Your task to perform on an android device: turn notification dots off Image 0: 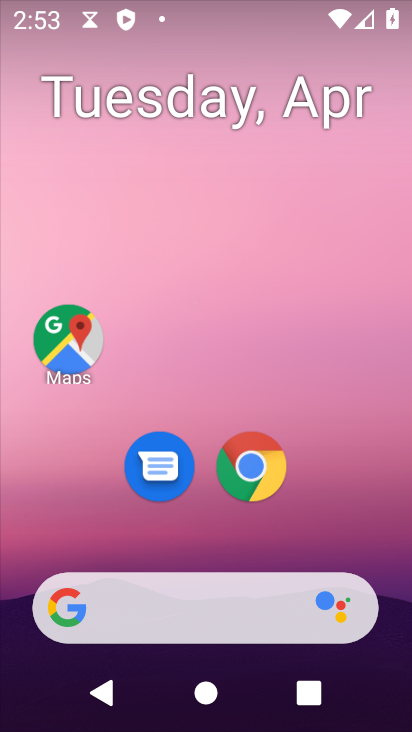
Step 0: drag from (356, 525) to (257, 6)
Your task to perform on an android device: turn notification dots off Image 1: 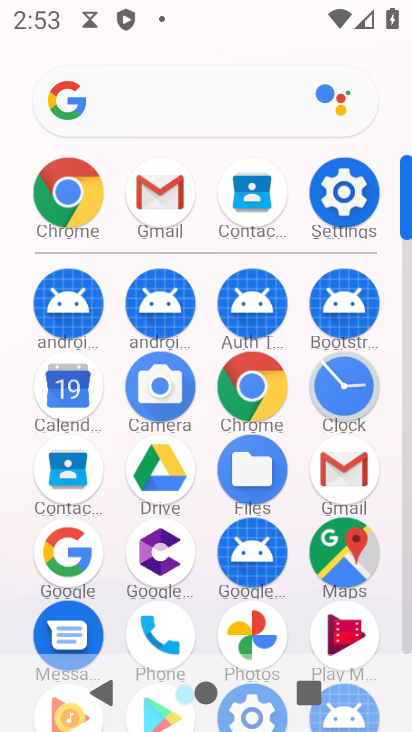
Step 1: drag from (10, 453) to (4, 280)
Your task to perform on an android device: turn notification dots off Image 2: 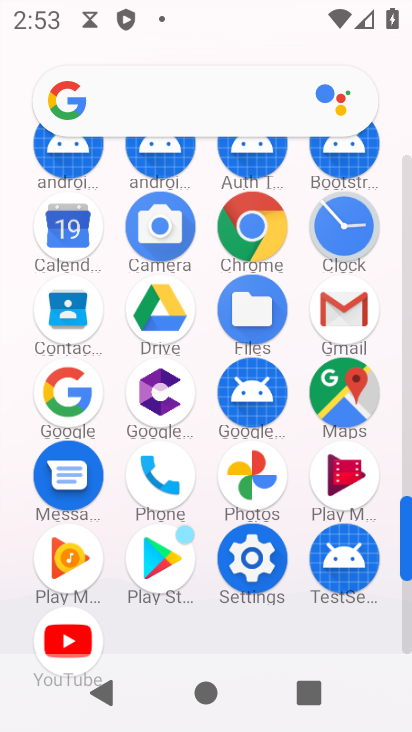
Step 2: click (253, 560)
Your task to perform on an android device: turn notification dots off Image 3: 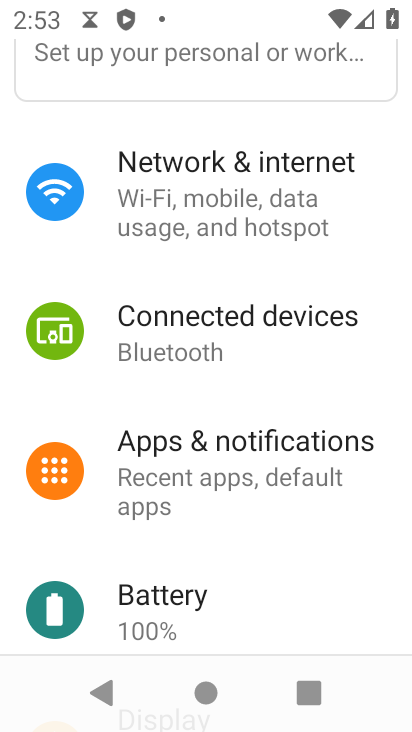
Step 3: drag from (260, 568) to (243, 250)
Your task to perform on an android device: turn notification dots off Image 4: 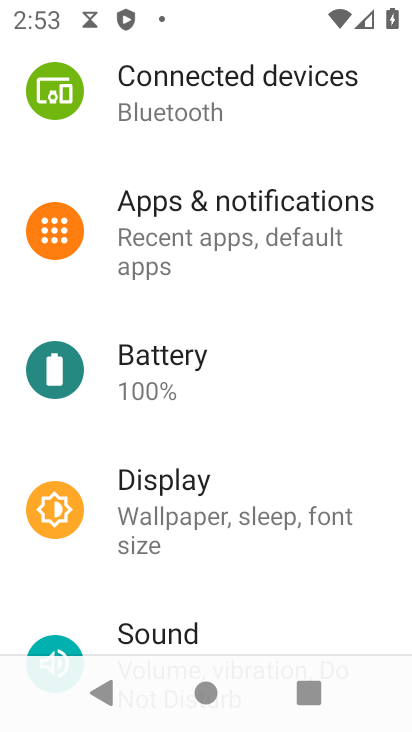
Step 4: click (242, 250)
Your task to perform on an android device: turn notification dots off Image 5: 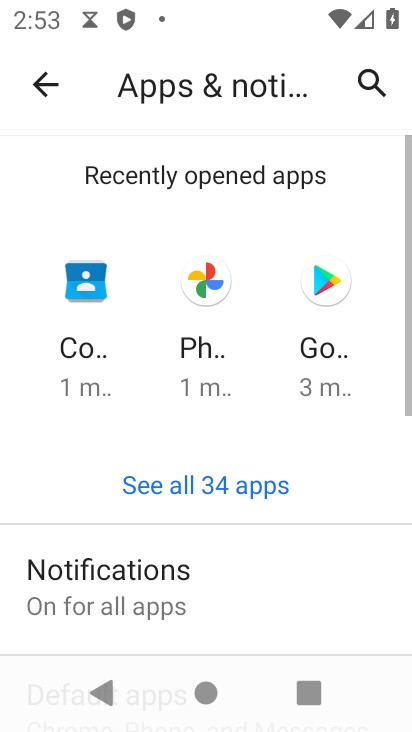
Step 5: drag from (267, 592) to (236, 188)
Your task to perform on an android device: turn notification dots off Image 6: 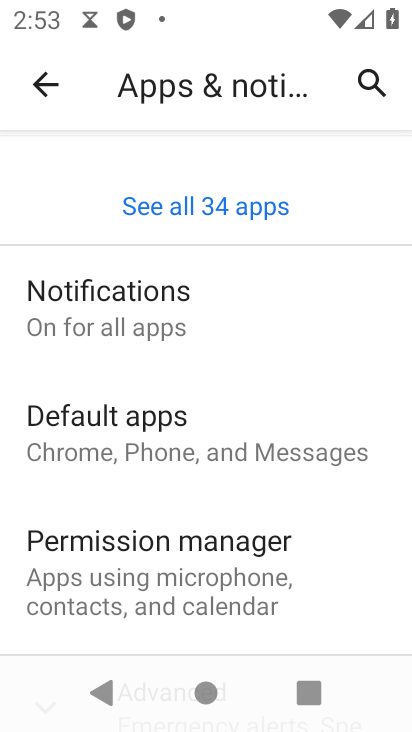
Step 6: click (200, 296)
Your task to perform on an android device: turn notification dots off Image 7: 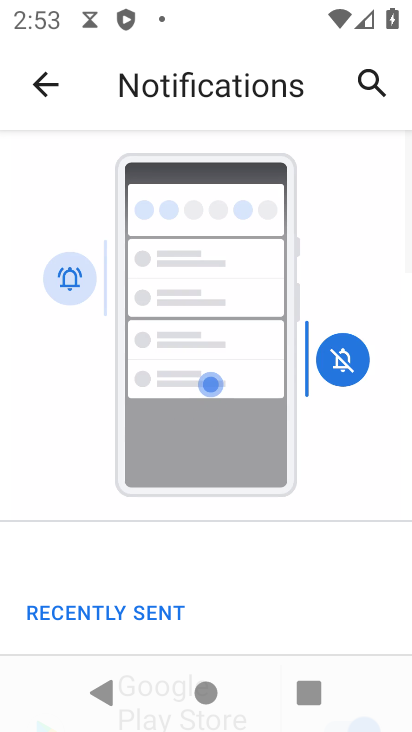
Step 7: drag from (282, 611) to (223, 75)
Your task to perform on an android device: turn notification dots off Image 8: 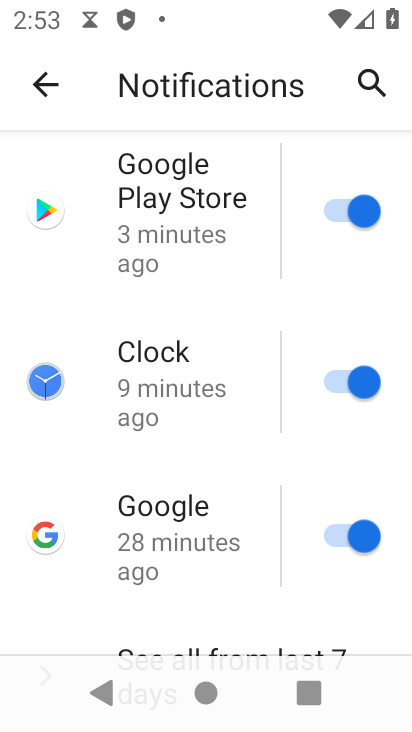
Step 8: drag from (231, 460) to (206, 64)
Your task to perform on an android device: turn notification dots off Image 9: 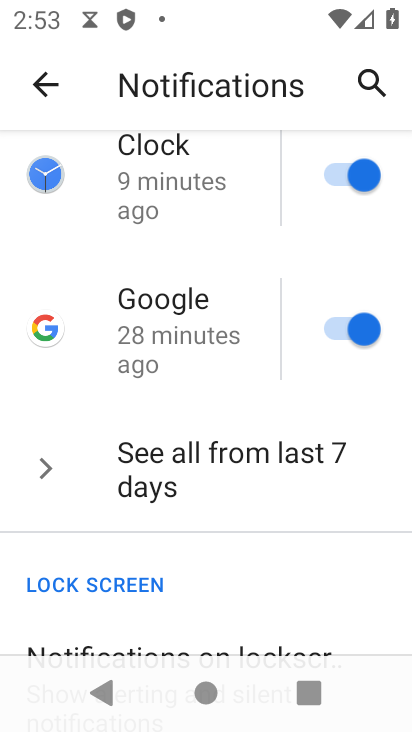
Step 9: drag from (194, 473) to (187, 106)
Your task to perform on an android device: turn notification dots off Image 10: 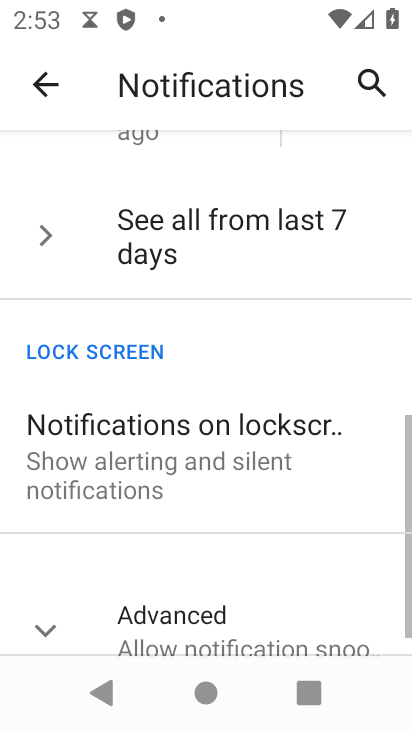
Step 10: drag from (204, 243) to (203, 158)
Your task to perform on an android device: turn notification dots off Image 11: 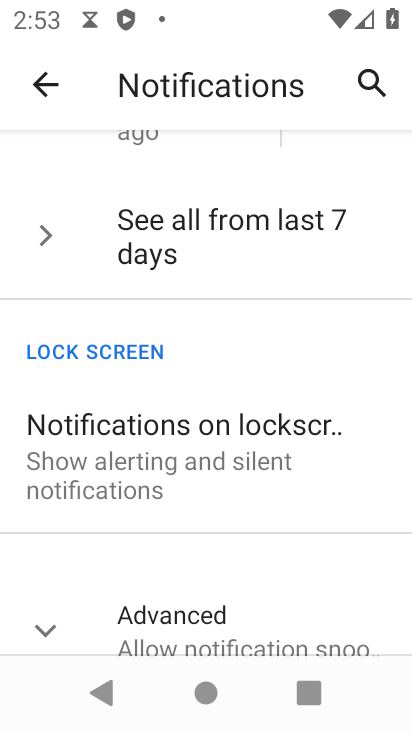
Step 11: drag from (202, 518) to (187, 149)
Your task to perform on an android device: turn notification dots off Image 12: 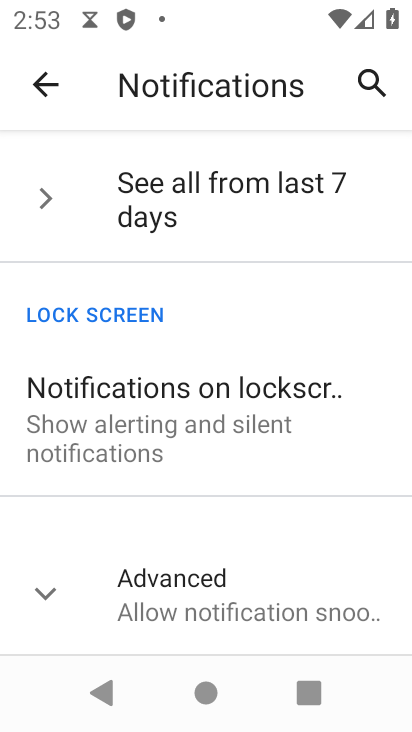
Step 12: click (58, 582)
Your task to perform on an android device: turn notification dots off Image 13: 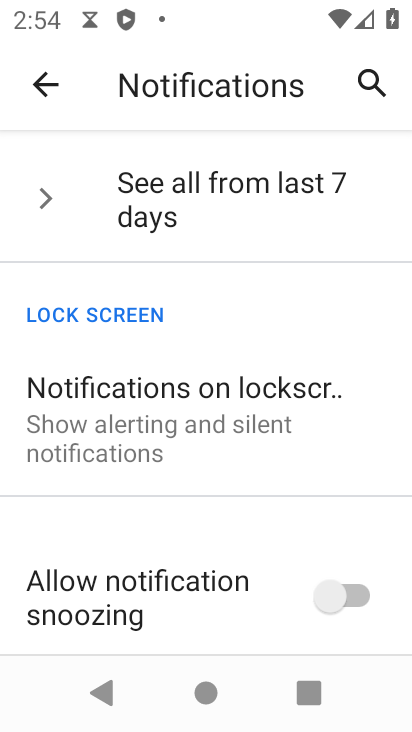
Step 13: drag from (183, 413) to (184, 204)
Your task to perform on an android device: turn notification dots off Image 14: 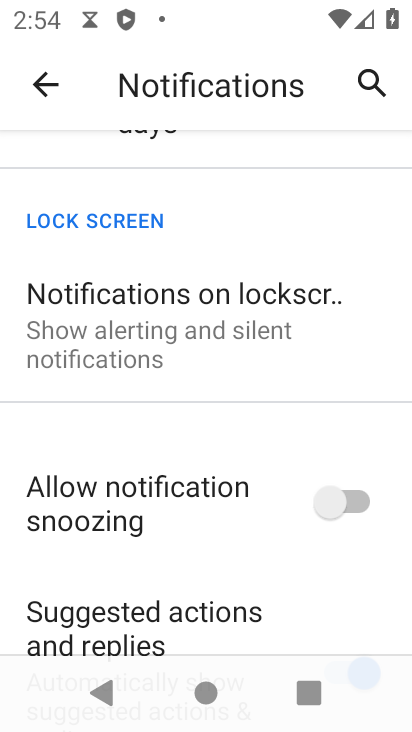
Step 14: drag from (194, 565) to (204, 218)
Your task to perform on an android device: turn notification dots off Image 15: 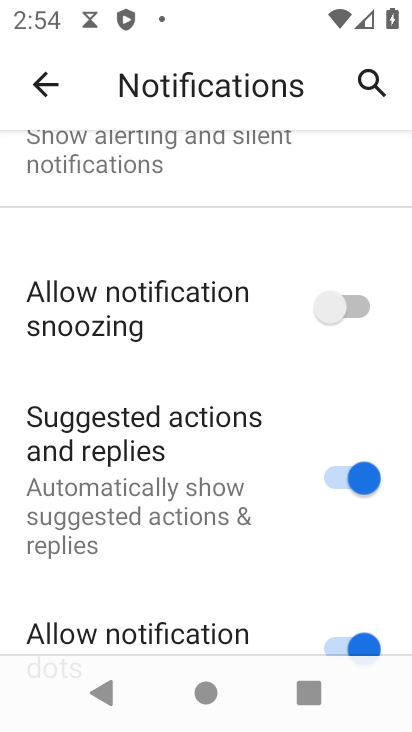
Step 15: drag from (188, 469) to (180, 163)
Your task to perform on an android device: turn notification dots off Image 16: 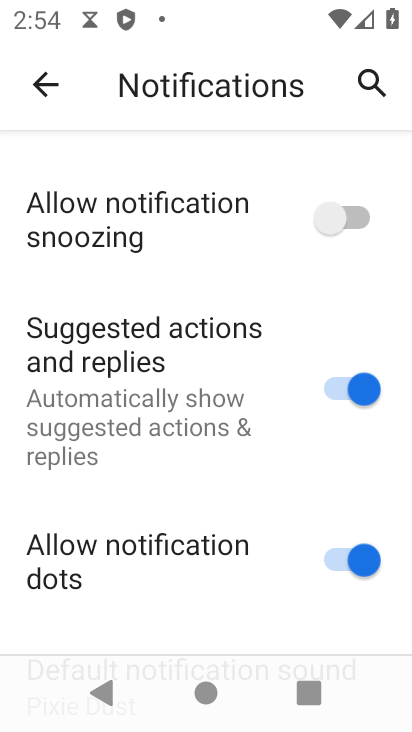
Step 16: drag from (212, 524) to (199, 240)
Your task to perform on an android device: turn notification dots off Image 17: 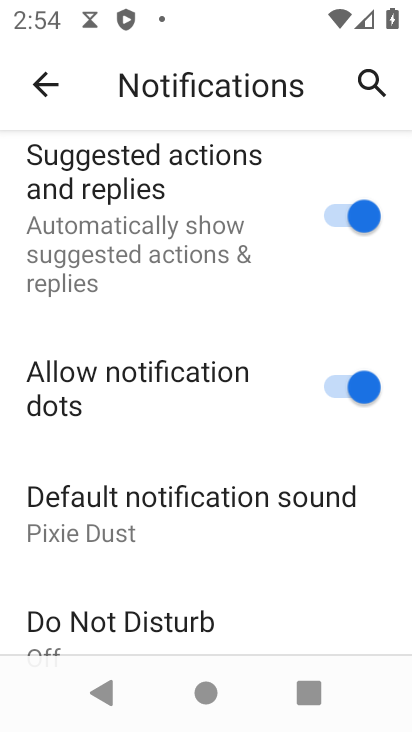
Step 17: click (337, 386)
Your task to perform on an android device: turn notification dots off Image 18: 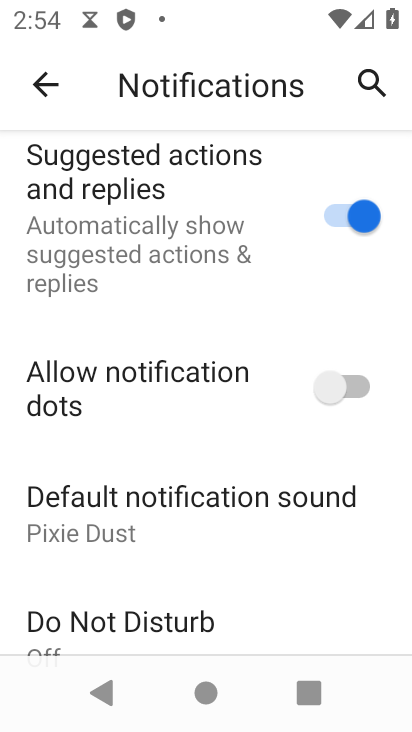
Step 18: task complete